Your task to perform on an android device: check storage Image 0: 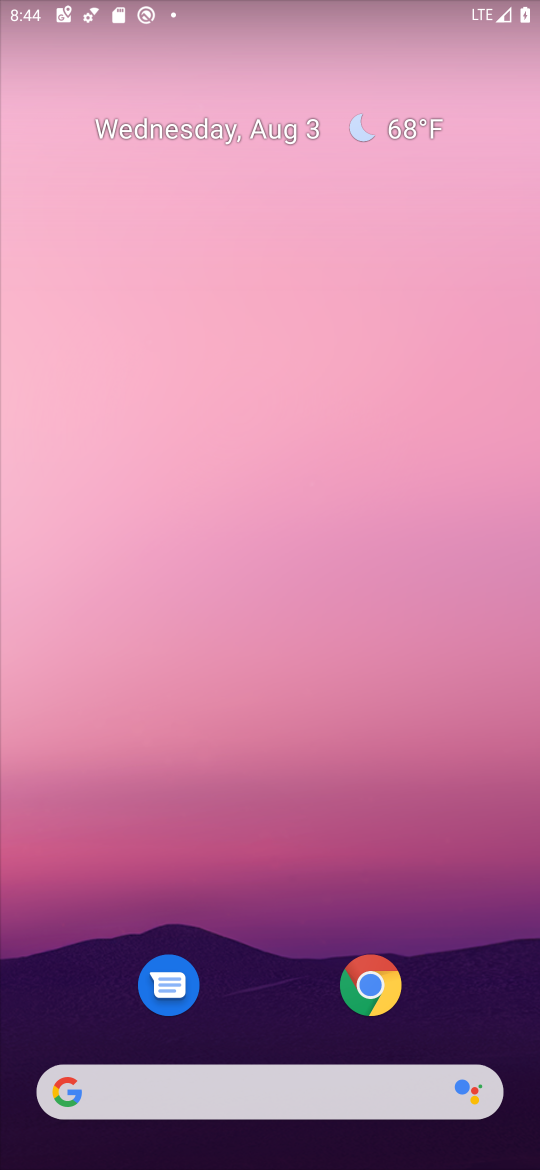
Step 0: drag from (266, 972) to (183, 210)
Your task to perform on an android device: check storage Image 1: 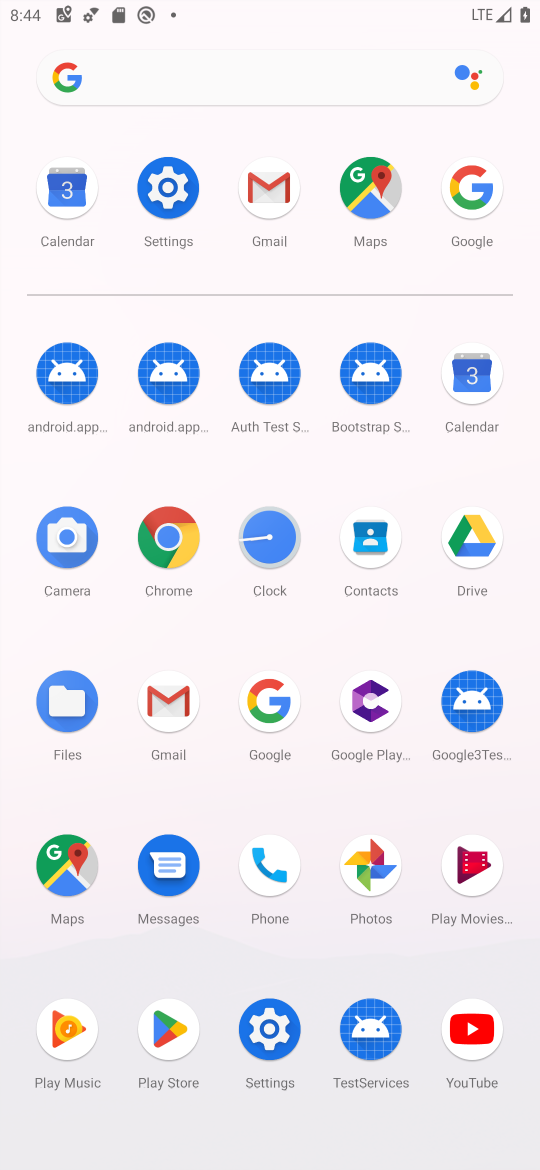
Step 1: click (181, 208)
Your task to perform on an android device: check storage Image 2: 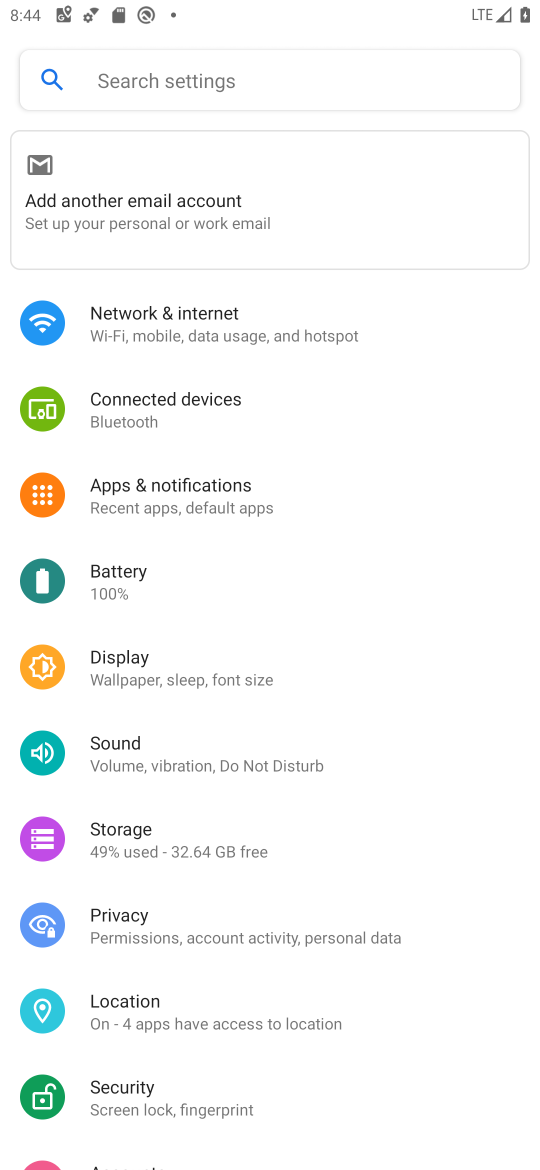
Step 2: click (165, 834)
Your task to perform on an android device: check storage Image 3: 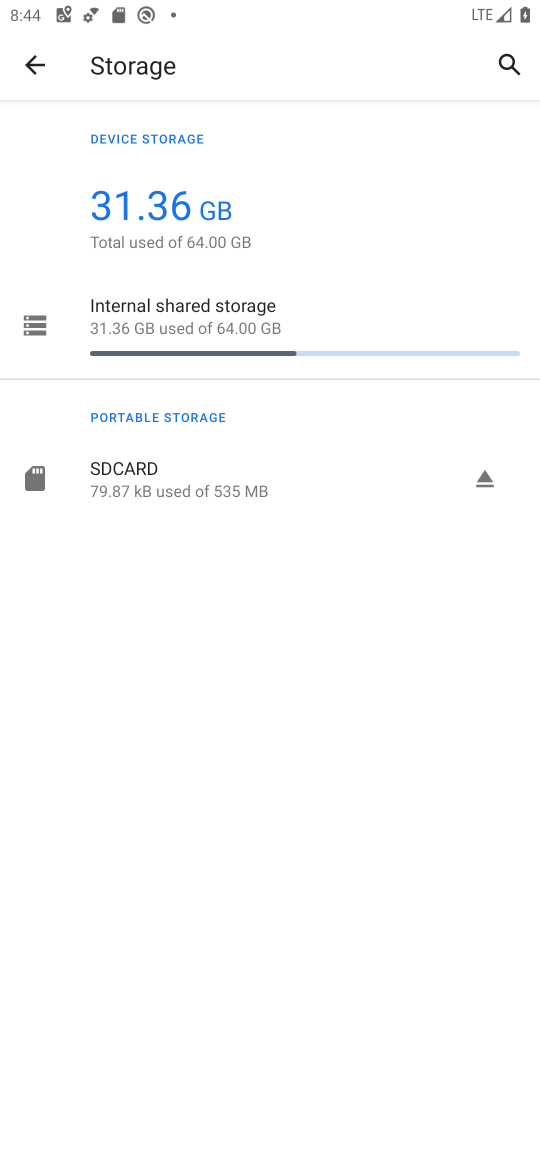
Step 3: task complete